Your task to perform on an android device: turn on the 12-hour format for clock Image 0: 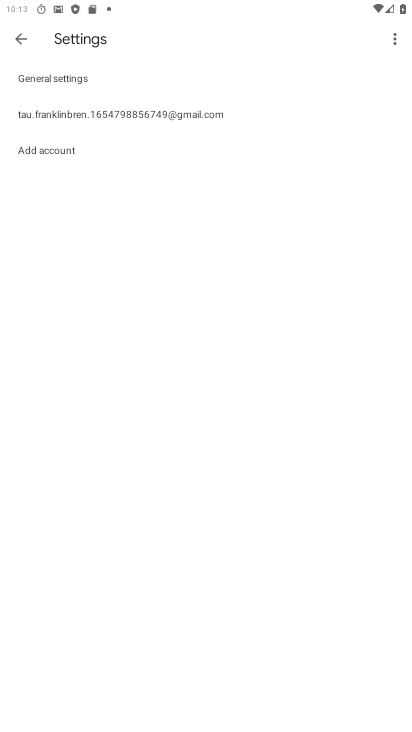
Step 0: press home button
Your task to perform on an android device: turn on the 12-hour format for clock Image 1: 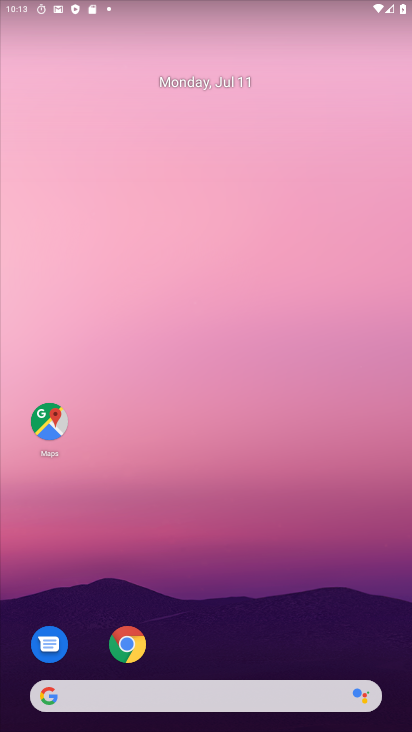
Step 1: drag from (217, 662) to (236, 87)
Your task to perform on an android device: turn on the 12-hour format for clock Image 2: 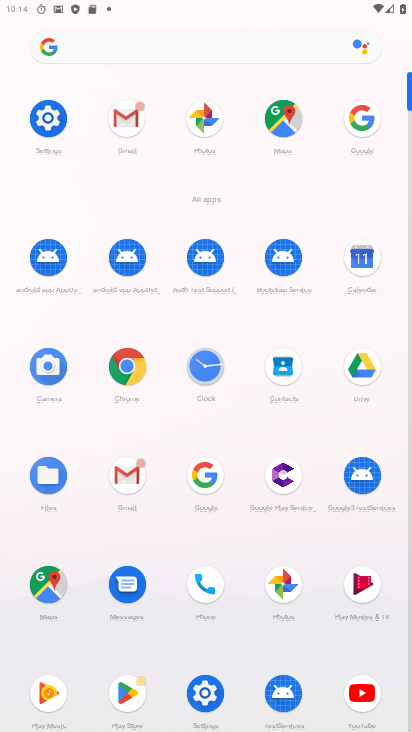
Step 2: click (208, 369)
Your task to perform on an android device: turn on the 12-hour format for clock Image 3: 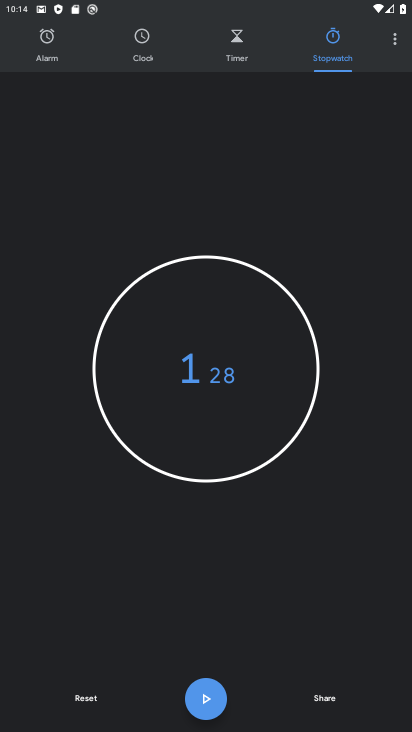
Step 3: click (394, 35)
Your task to perform on an android device: turn on the 12-hour format for clock Image 4: 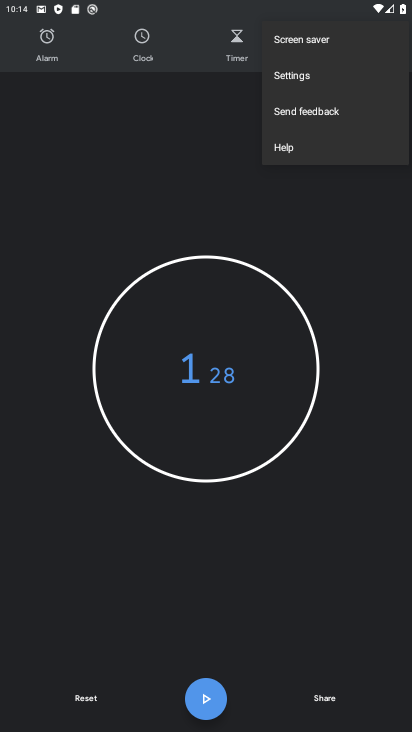
Step 4: click (298, 74)
Your task to perform on an android device: turn on the 12-hour format for clock Image 5: 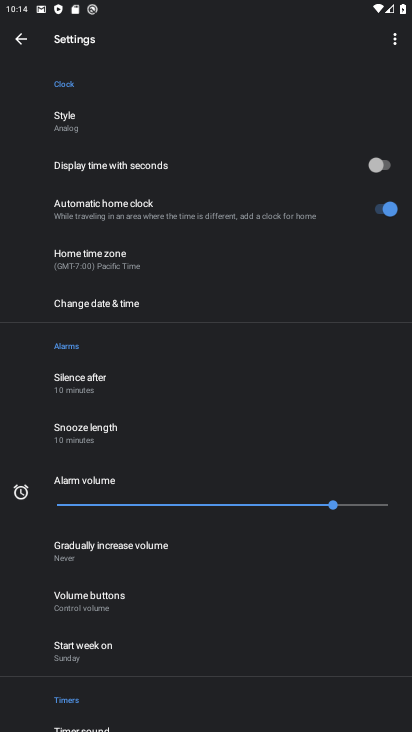
Step 5: drag from (187, 593) to (186, 178)
Your task to perform on an android device: turn on the 12-hour format for clock Image 6: 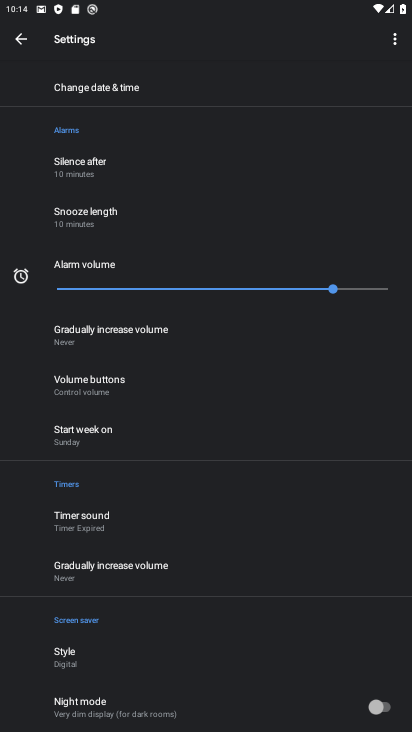
Step 6: drag from (170, 198) to (174, 544)
Your task to perform on an android device: turn on the 12-hour format for clock Image 7: 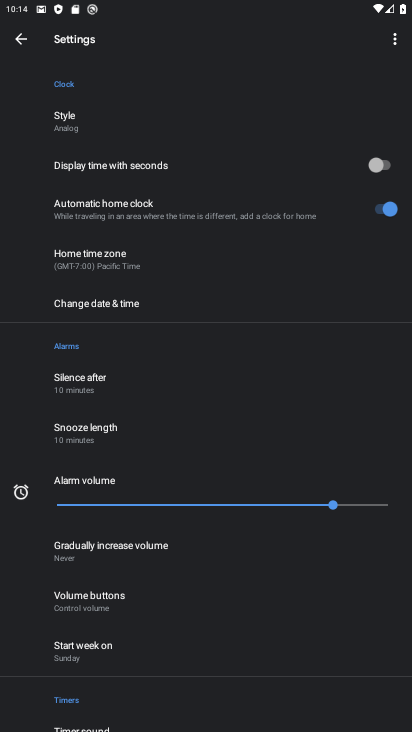
Step 7: drag from (144, 182) to (163, 437)
Your task to perform on an android device: turn on the 12-hour format for clock Image 8: 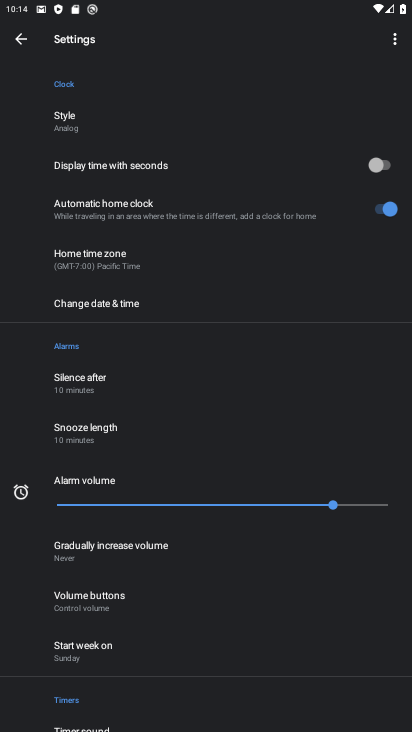
Step 8: click (178, 300)
Your task to perform on an android device: turn on the 12-hour format for clock Image 9: 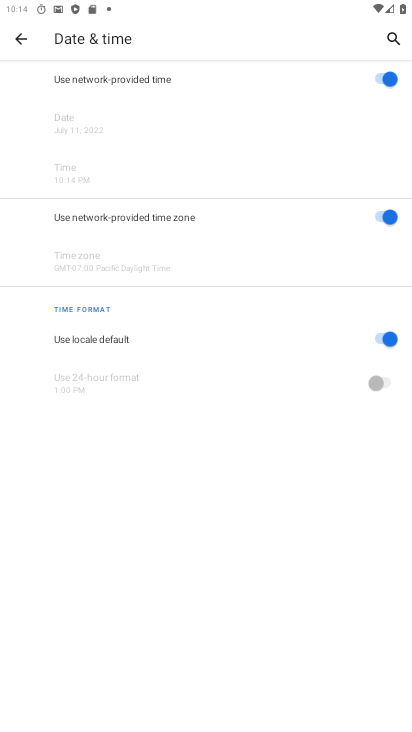
Step 9: task complete